Your task to perform on an android device: Open location settings Image 0: 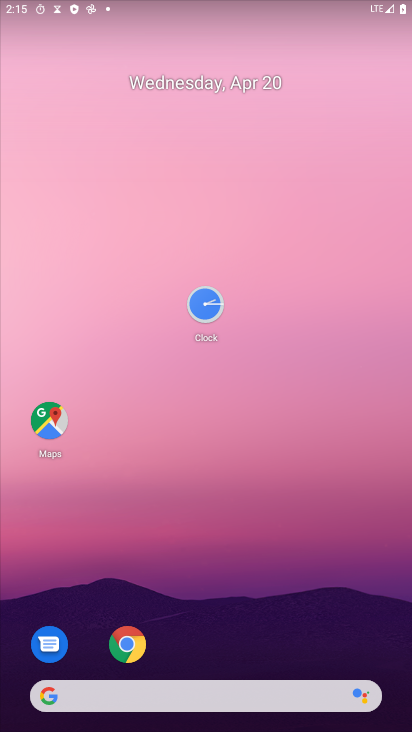
Step 0: drag from (270, 629) to (337, 181)
Your task to perform on an android device: Open location settings Image 1: 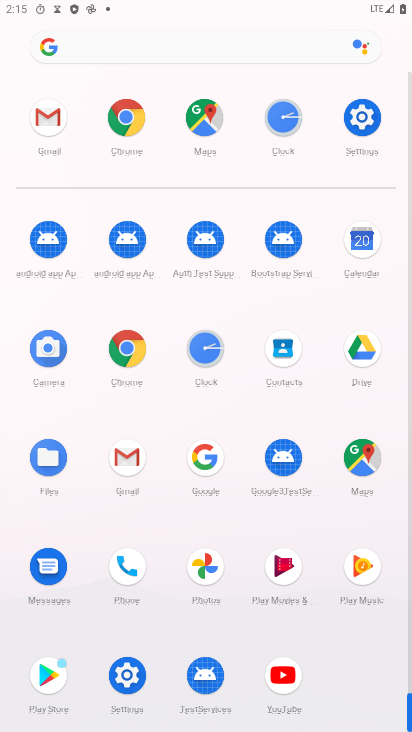
Step 1: click (126, 681)
Your task to perform on an android device: Open location settings Image 2: 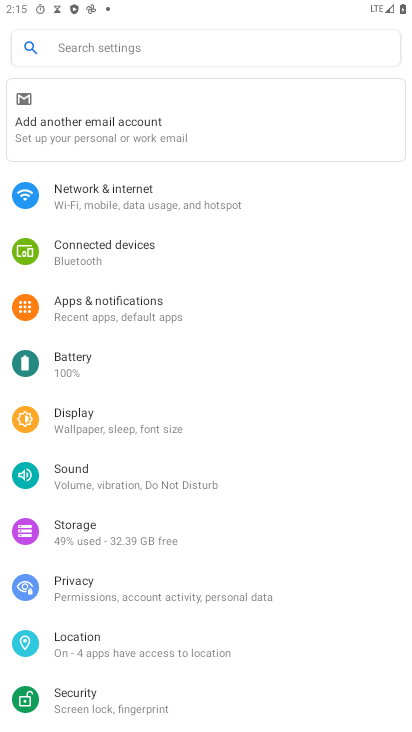
Step 2: click (115, 643)
Your task to perform on an android device: Open location settings Image 3: 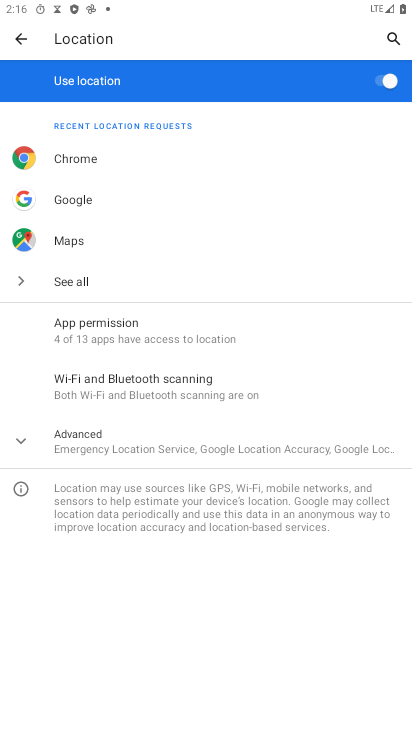
Step 3: task complete